Your task to perform on an android device: remove spam from my inbox in the gmail app Image 0: 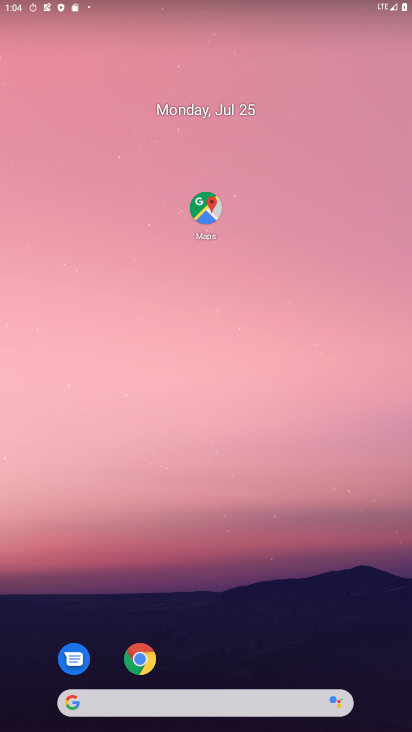
Step 0: drag from (19, 685) to (278, 305)
Your task to perform on an android device: remove spam from my inbox in the gmail app Image 1: 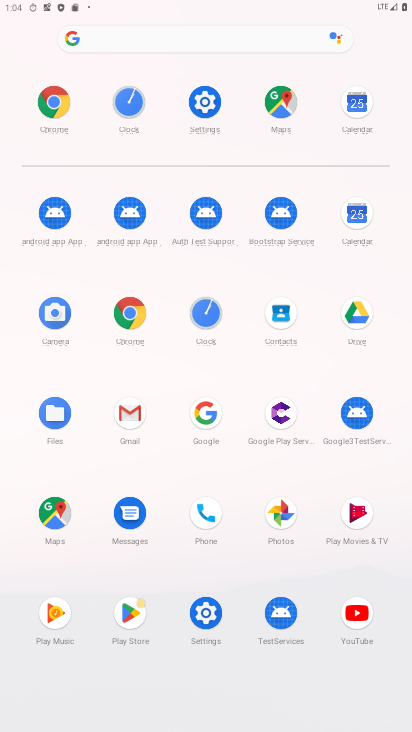
Step 1: click (130, 417)
Your task to perform on an android device: remove spam from my inbox in the gmail app Image 2: 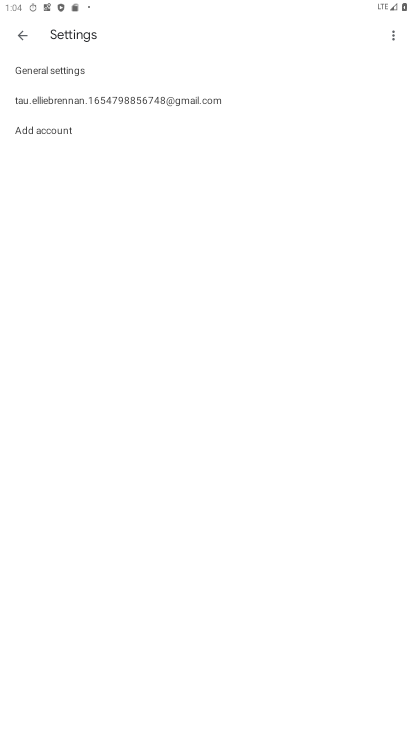
Step 2: click (21, 43)
Your task to perform on an android device: remove spam from my inbox in the gmail app Image 3: 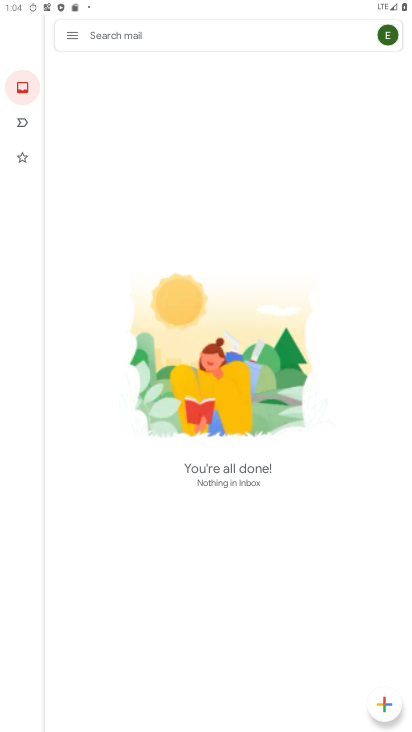
Step 3: click (77, 35)
Your task to perform on an android device: remove spam from my inbox in the gmail app Image 4: 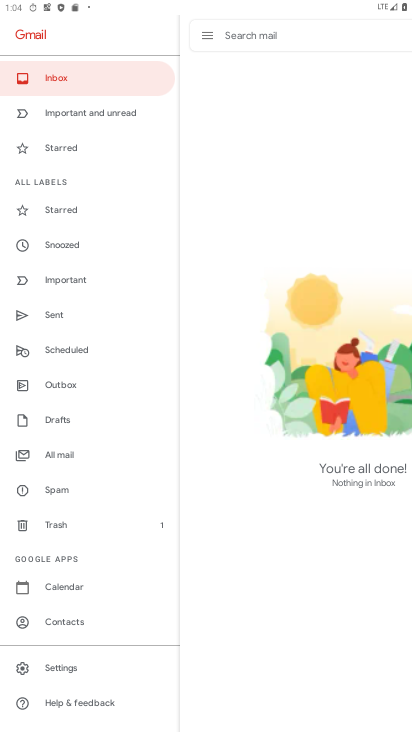
Step 4: click (58, 485)
Your task to perform on an android device: remove spam from my inbox in the gmail app Image 5: 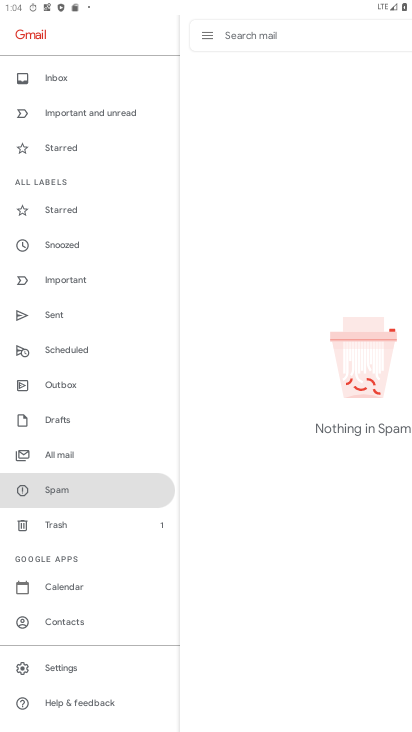
Step 5: task complete